Your task to perform on an android device: Search for flights from Zurich to Buenos aires Image 0: 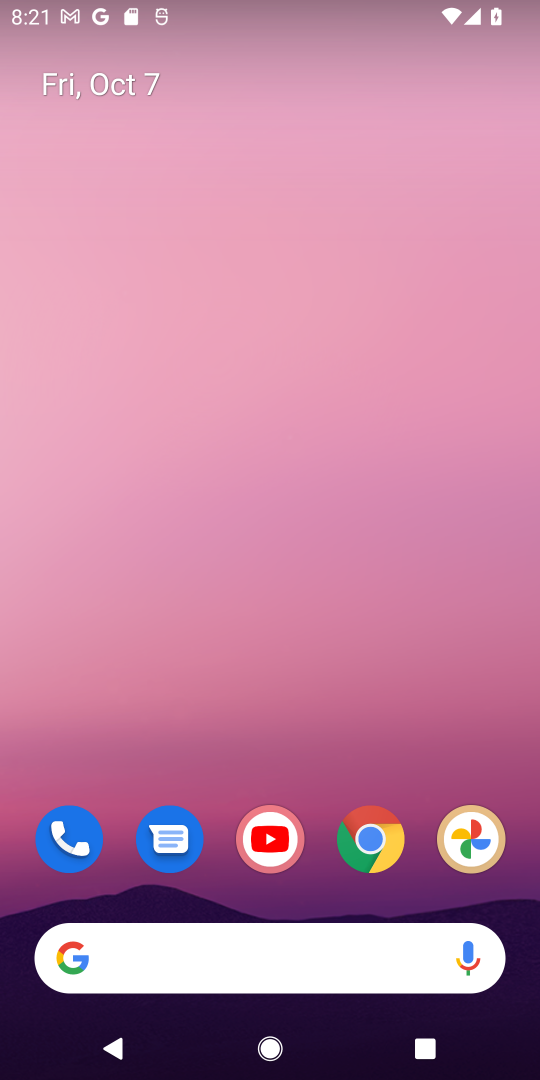
Step 0: click (361, 845)
Your task to perform on an android device: Search for flights from Zurich to Buenos aires Image 1: 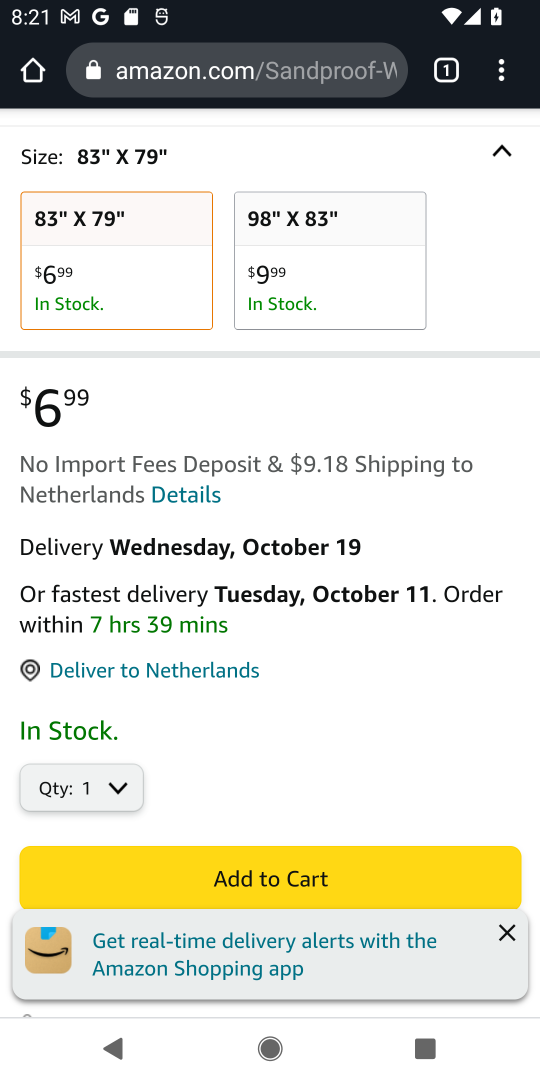
Step 1: click (306, 86)
Your task to perform on an android device: Search for flights from Zurich to Buenos aires Image 2: 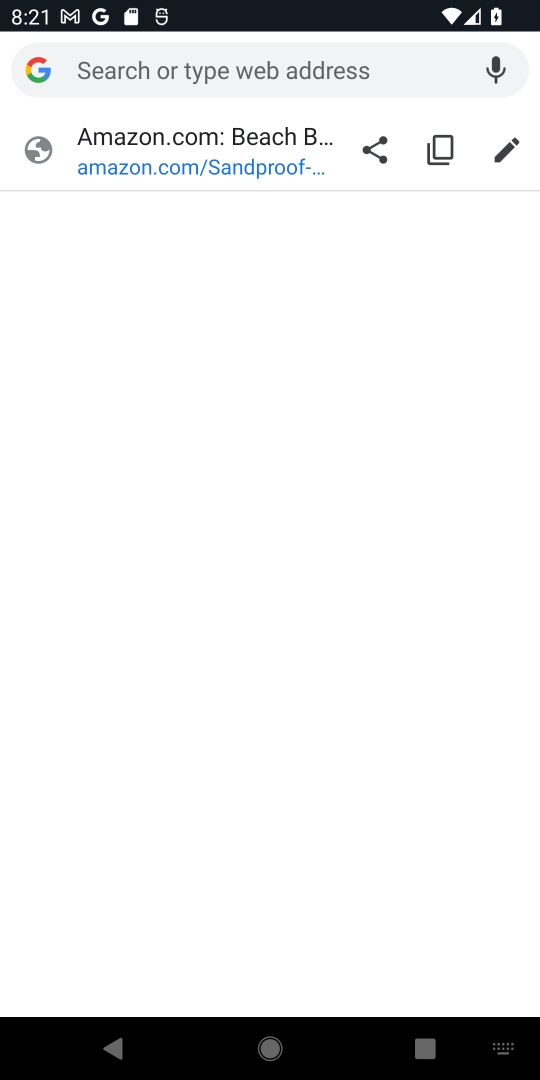
Step 2: type "flight search"
Your task to perform on an android device: Search for flights from Zurich to Buenos aires Image 3: 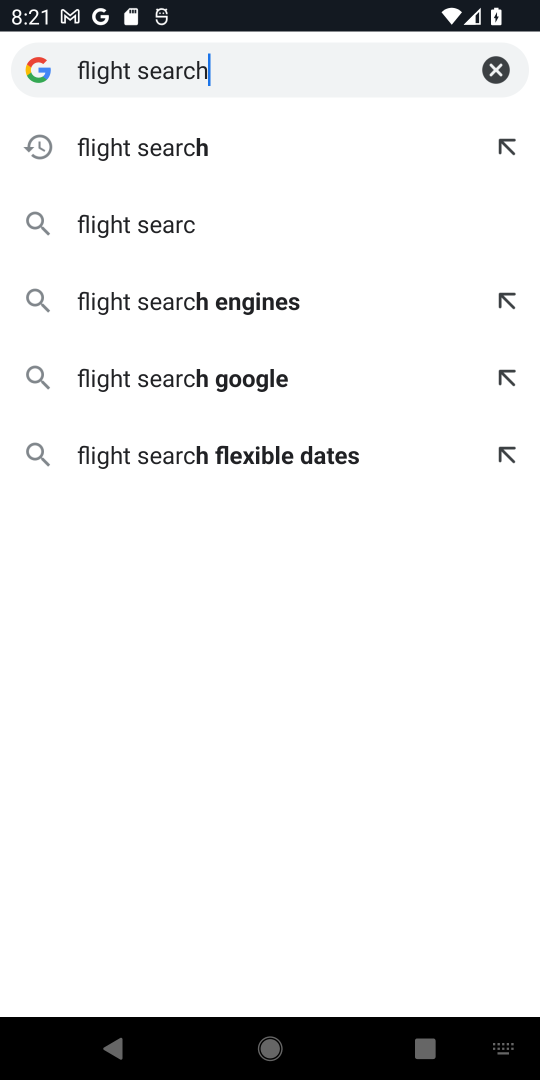
Step 3: type ""
Your task to perform on an android device: Search for flights from Zurich to Buenos aires Image 4: 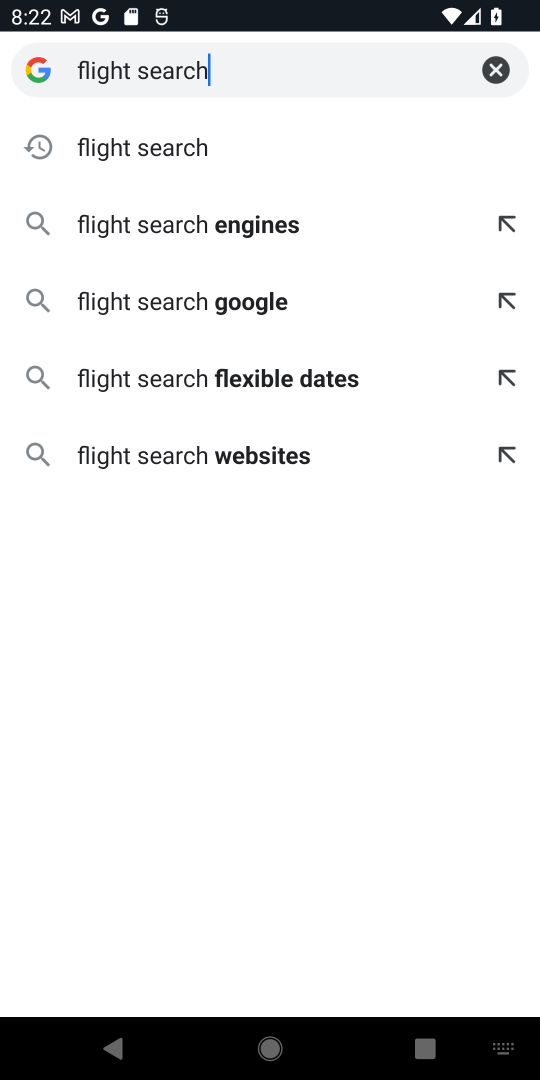
Step 4: click (138, 149)
Your task to perform on an android device: Search for flights from Zurich to Buenos aires Image 5: 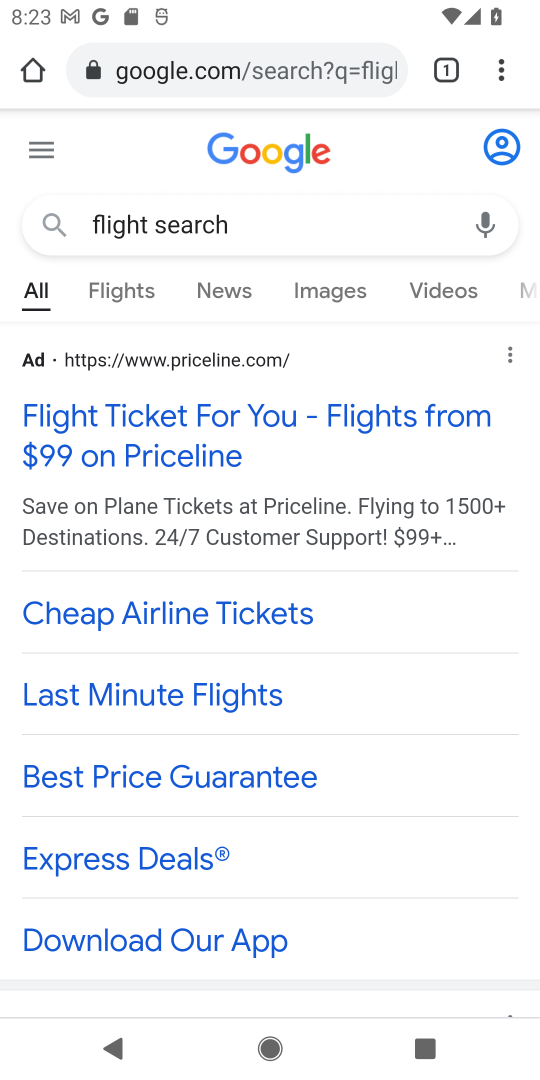
Step 5: click (155, 612)
Your task to perform on an android device: Search for flights from Zurich to Buenos aires Image 6: 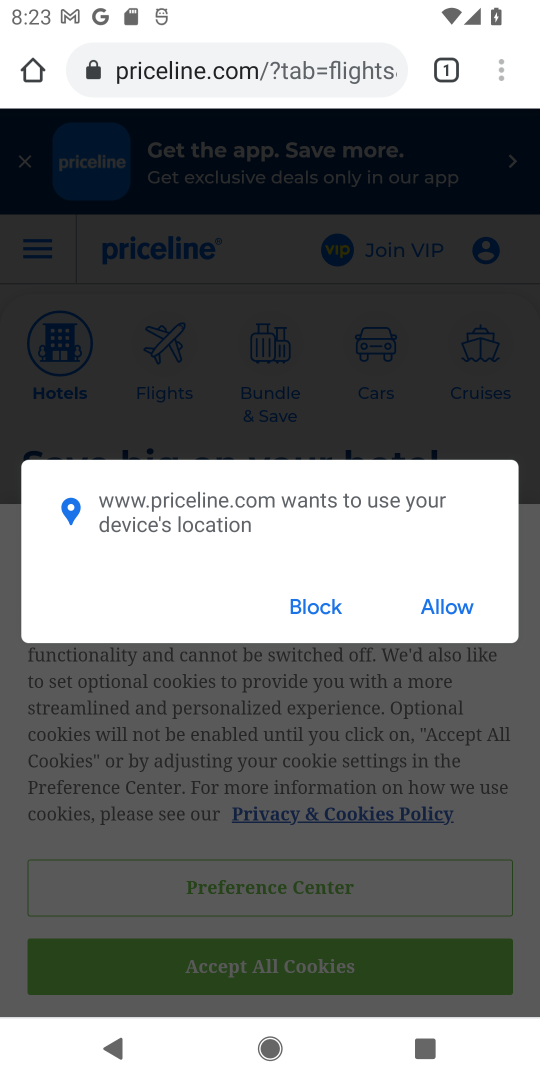
Step 6: click (447, 602)
Your task to perform on an android device: Search for flights from Zurich to Buenos aires Image 7: 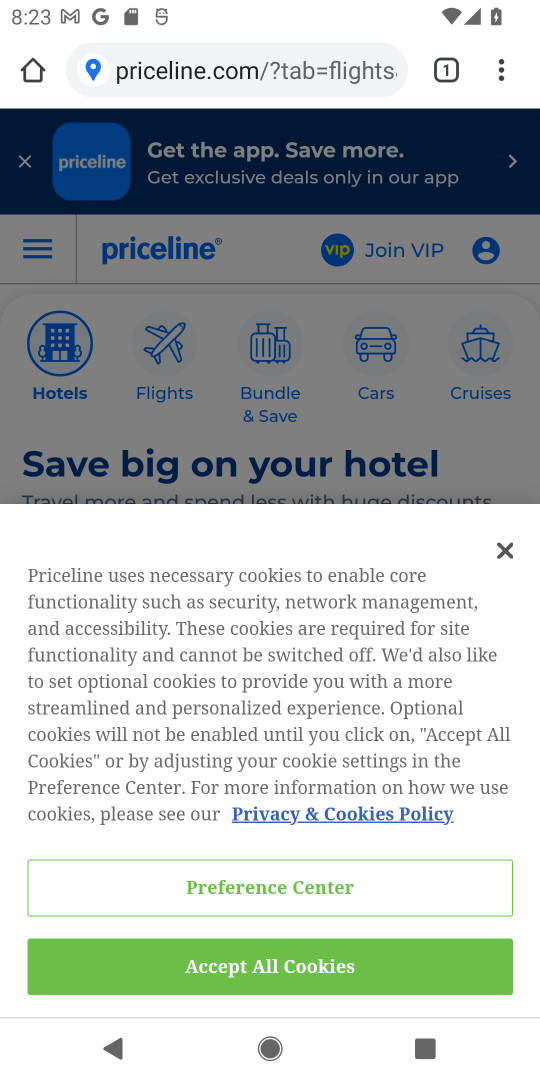
Step 7: click (501, 551)
Your task to perform on an android device: Search for flights from Zurich to Buenos aires Image 8: 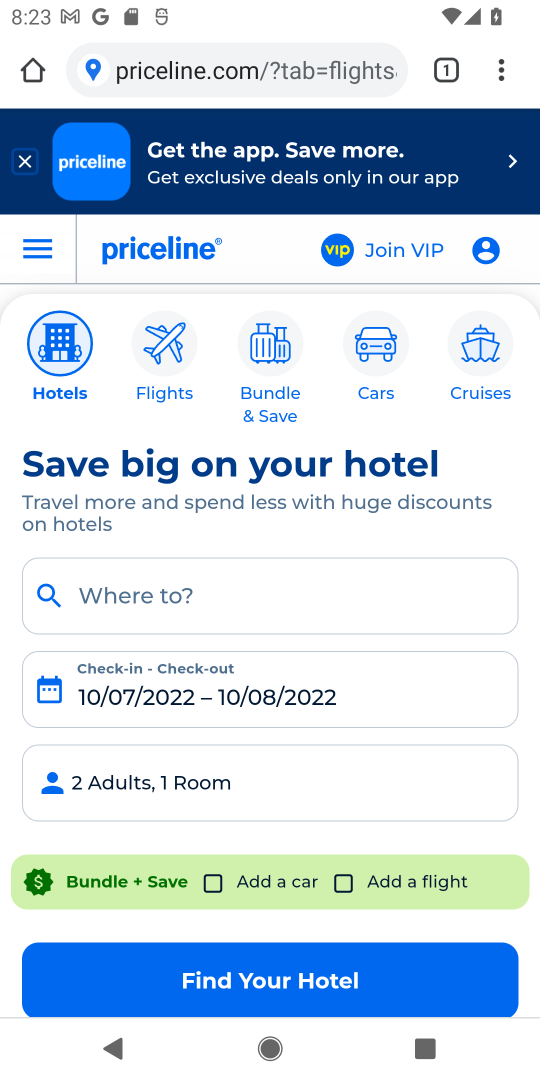
Step 8: click (155, 348)
Your task to perform on an android device: Search for flights from Zurich to Buenos aires Image 9: 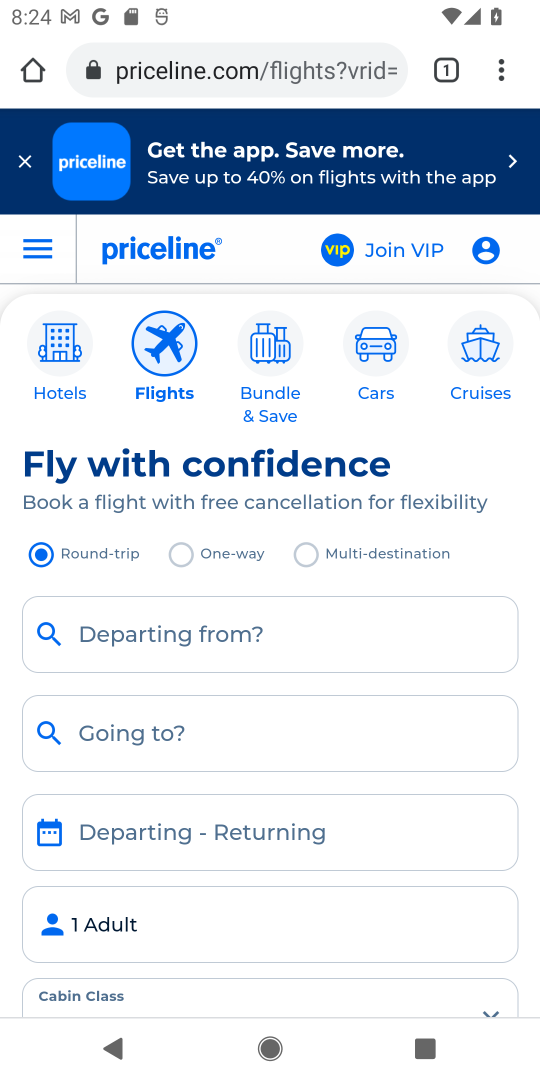
Step 9: click (149, 638)
Your task to perform on an android device: Search for flights from Zurich to Buenos aires Image 10: 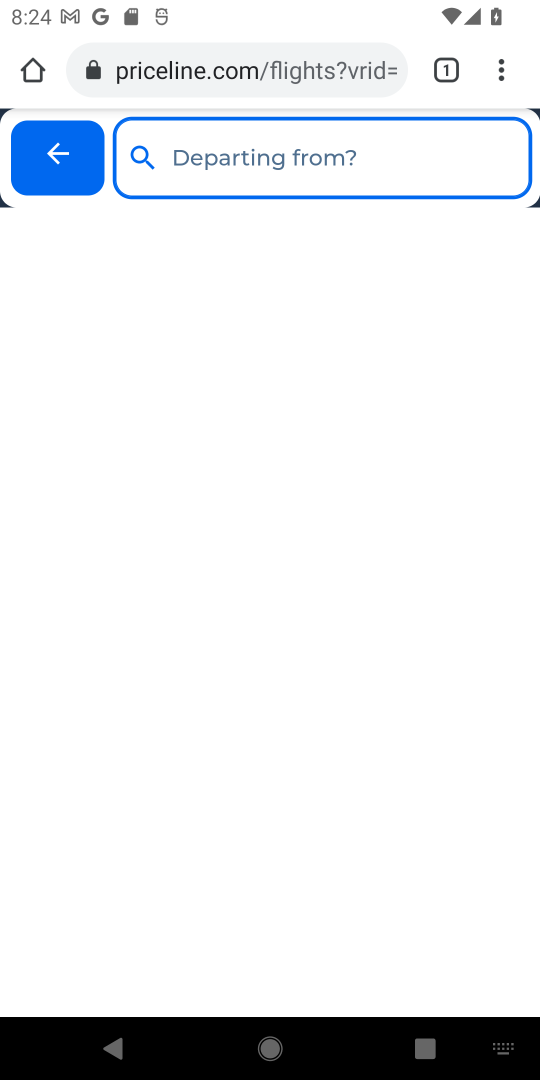
Step 10: type "zurich"
Your task to perform on an android device: Search for flights from Zurich to Buenos aires Image 11: 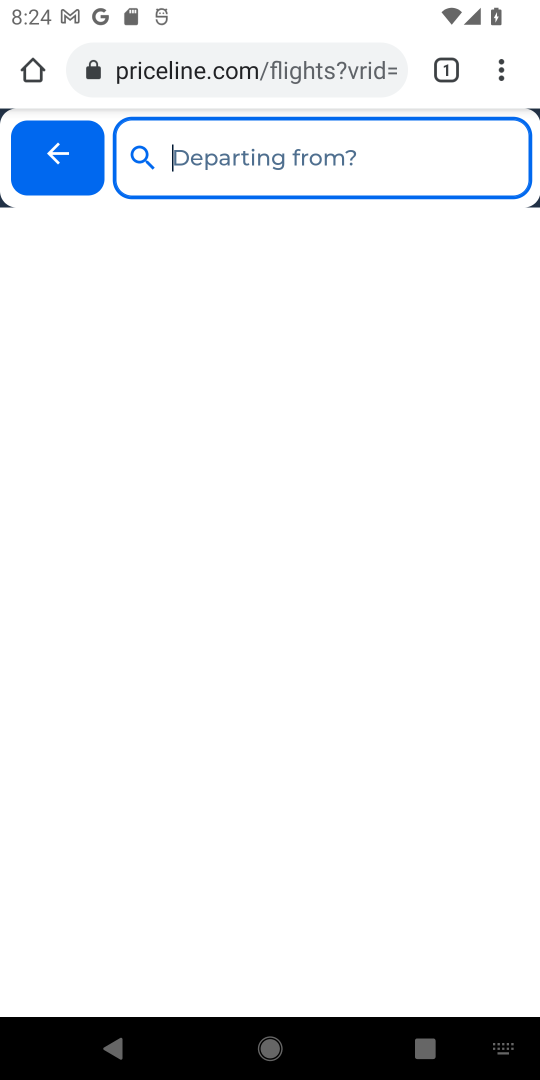
Step 11: type ""
Your task to perform on an android device: Search for flights from Zurich to Buenos aires Image 12: 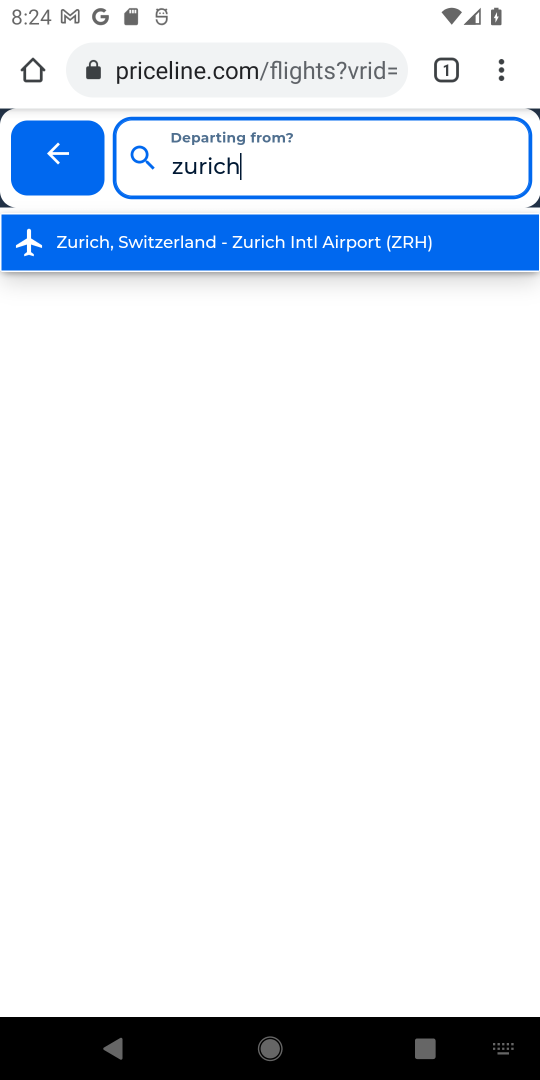
Step 12: click (293, 255)
Your task to perform on an android device: Search for flights from Zurich to Buenos aires Image 13: 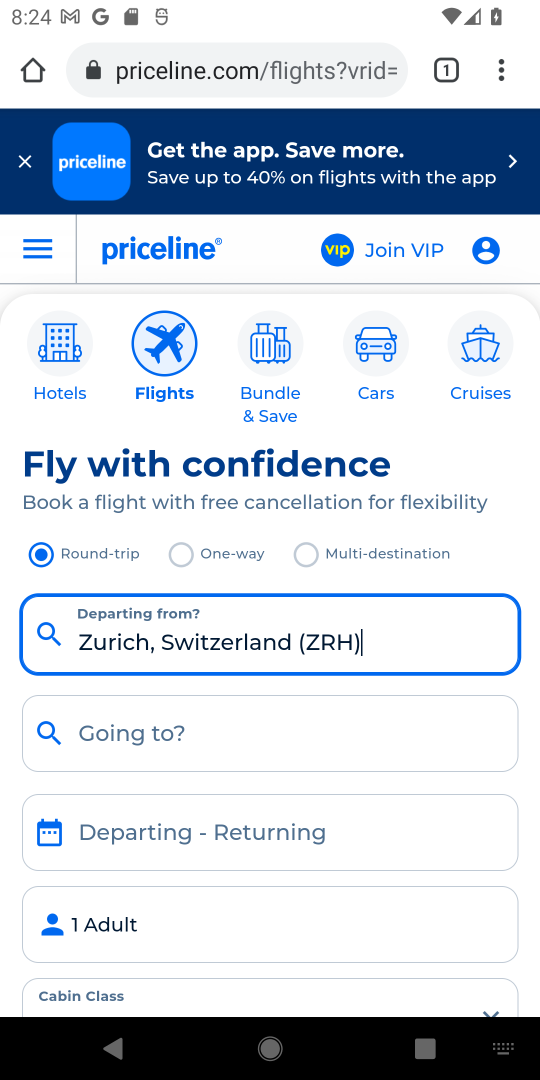
Step 13: click (129, 728)
Your task to perform on an android device: Search for flights from Zurich to Buenos aires Image 14: 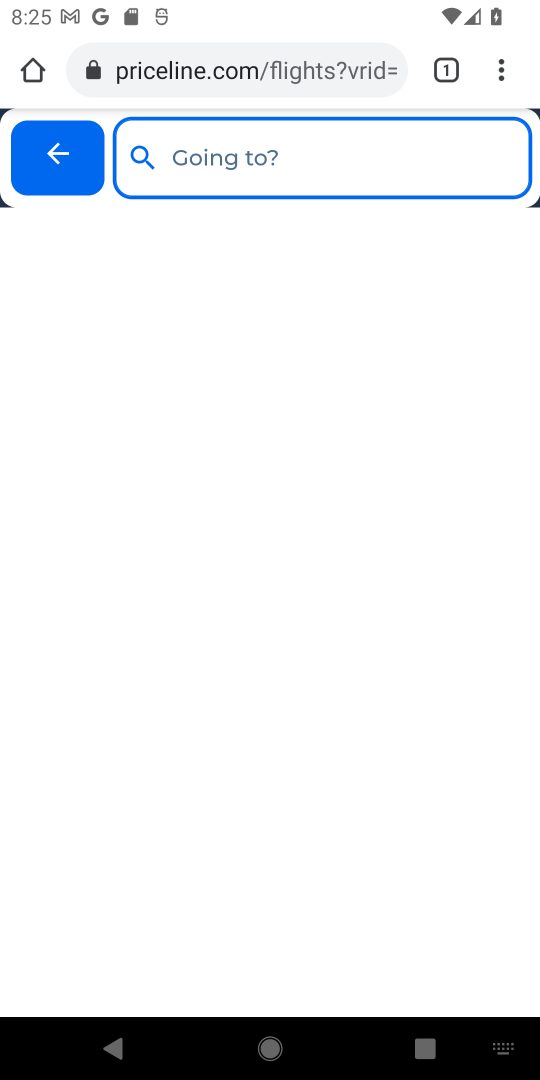
Step 14: type "buenos"
Your task to perform on an android device: Search for flights from Zurich to Buenos aires Image 15: 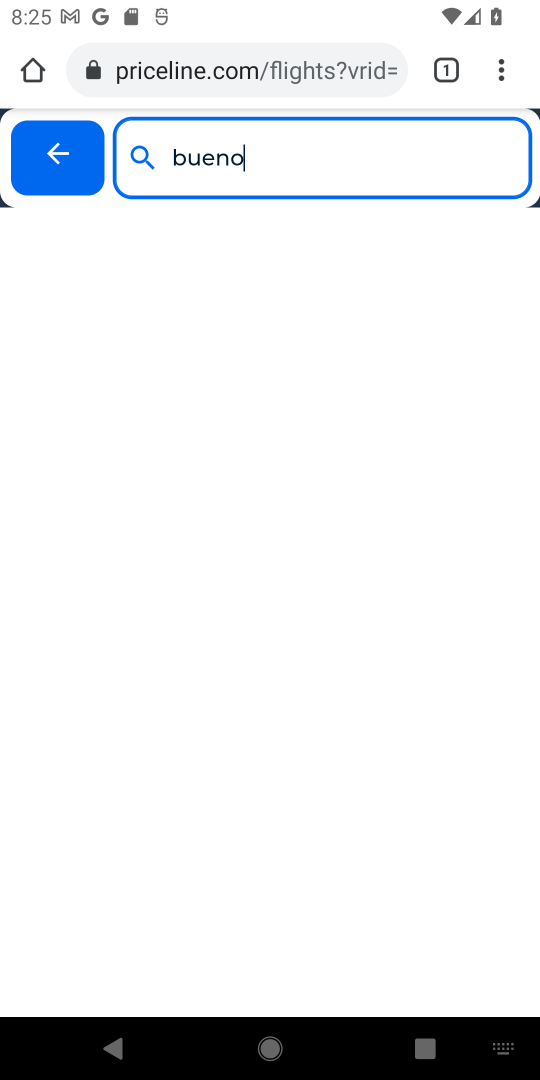
Step 15: type ""
Your task to perform on an android device: Search for flights from Zurich to Buenos aires Image 16: 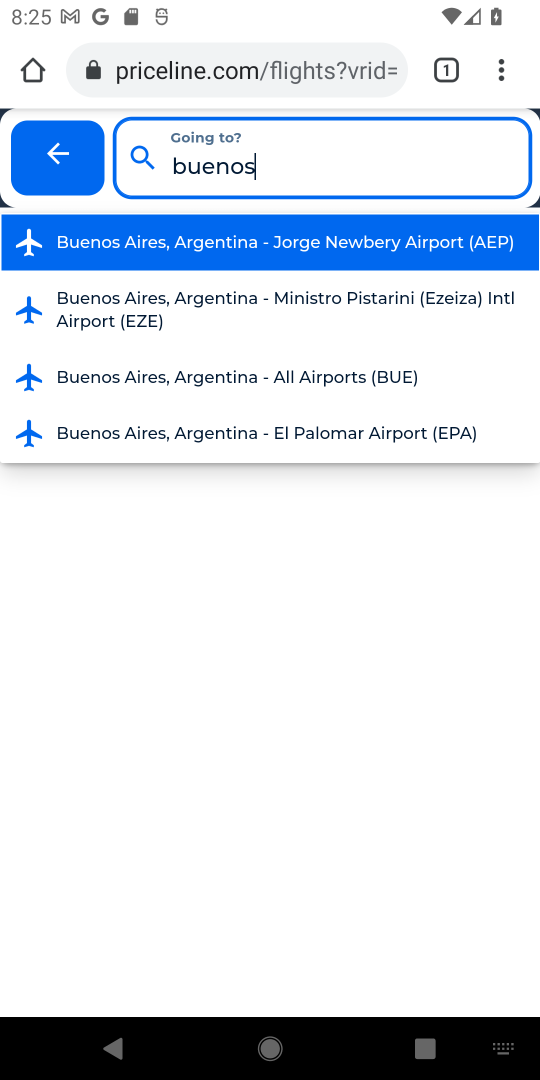
Step 16: click (121, 304)
Your task to perform on an android device: Search for flights from Zurich to Buenos aires Image 17: 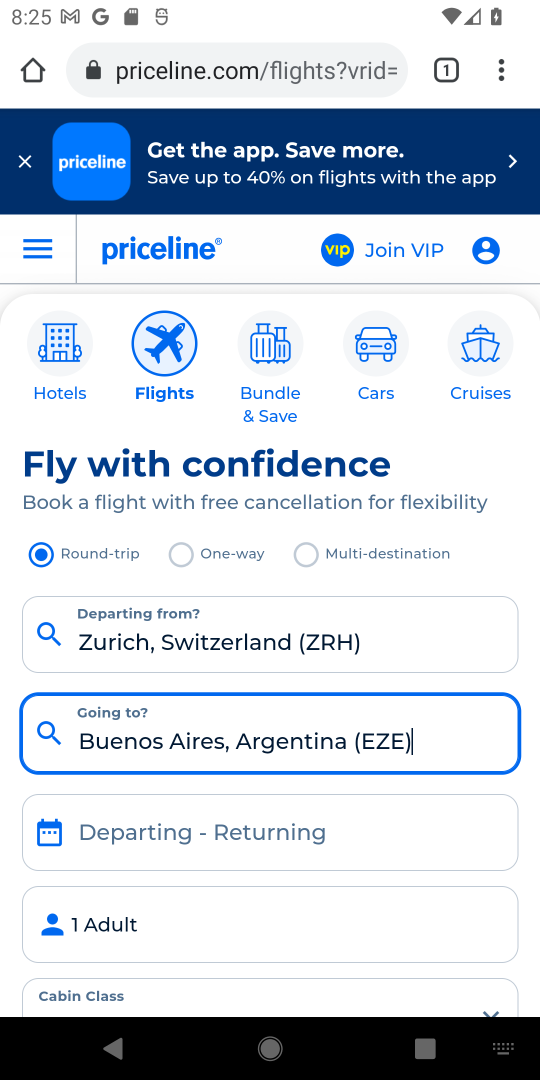
Step 17: drag from (467, 632) to (457, 428)
Your task to perform on an android device: Search for flights from Zurich to Buenos aires Image 18: 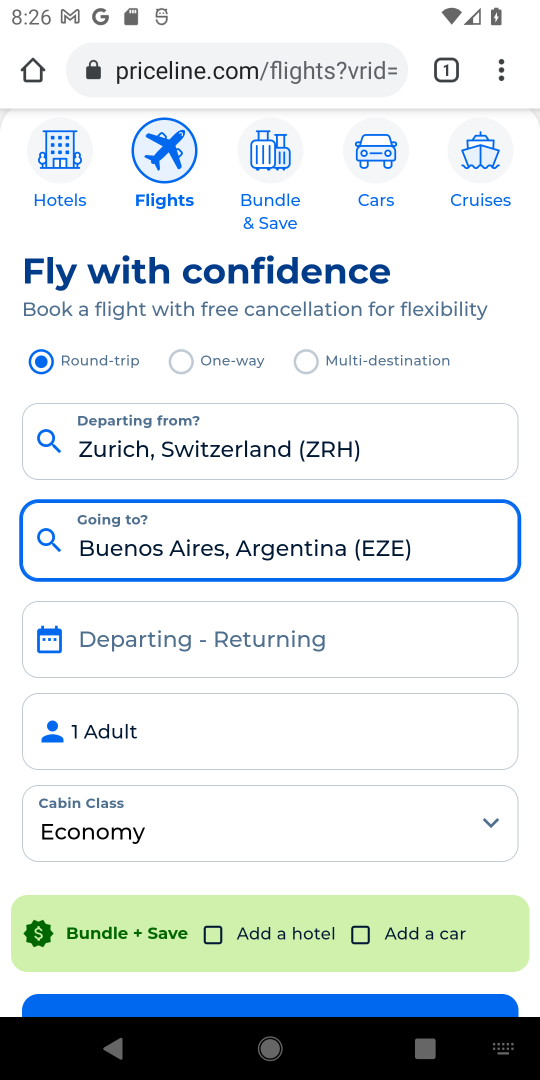
Step 18: drag from (261, 818) to (332, 173)
Your task to perform on an android device: Search for flights from Zurich to Buenos aires Image 19: 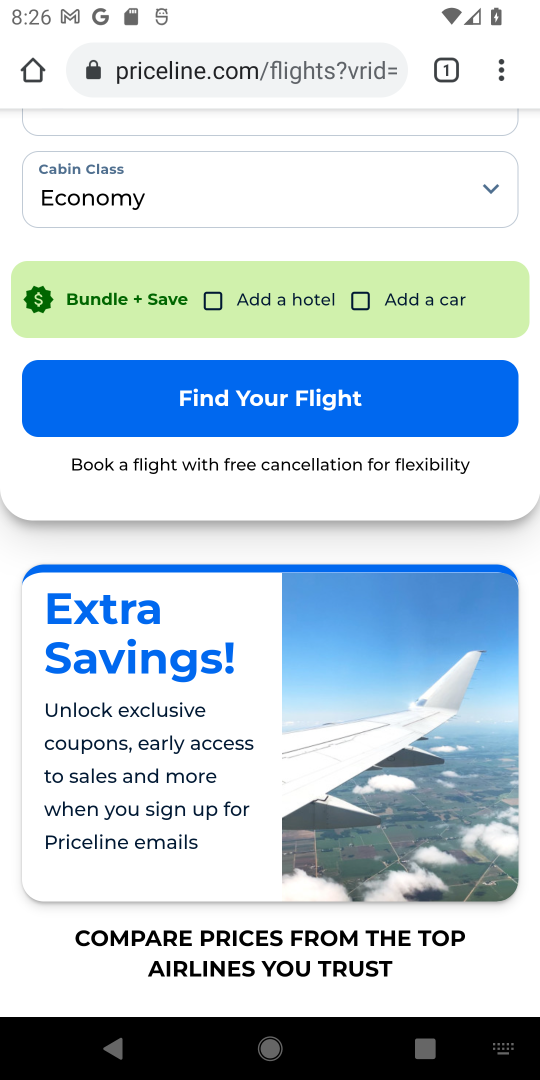
Step 19: click (326, 397)
Your task to perform on an android device: Search for flights from Zurich to Buenos aires Image 20: 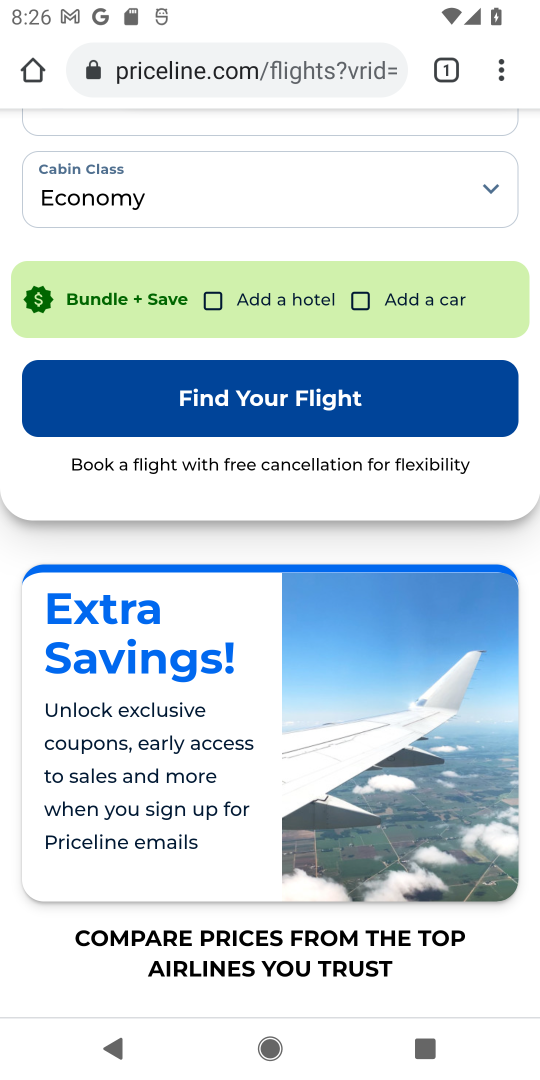
Step 20: click (322, 398)
Your task to perform on an android device: Search for flights from Zurich to Buenos aires Image 21: 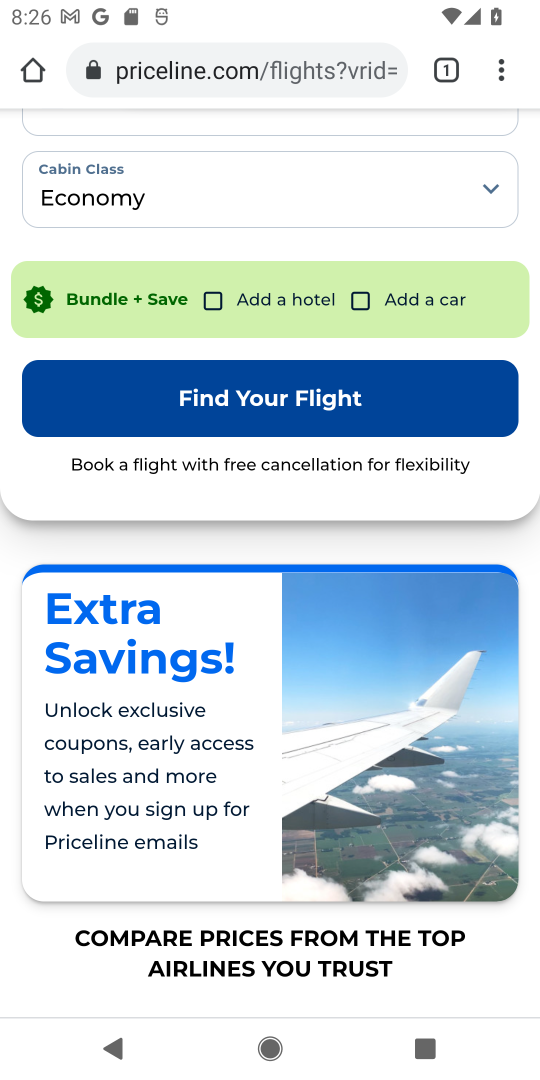
Step 21: click (318, 404)
Your task to perform on an android device: Search for flights from Zurich to Buenos aires Image 22: 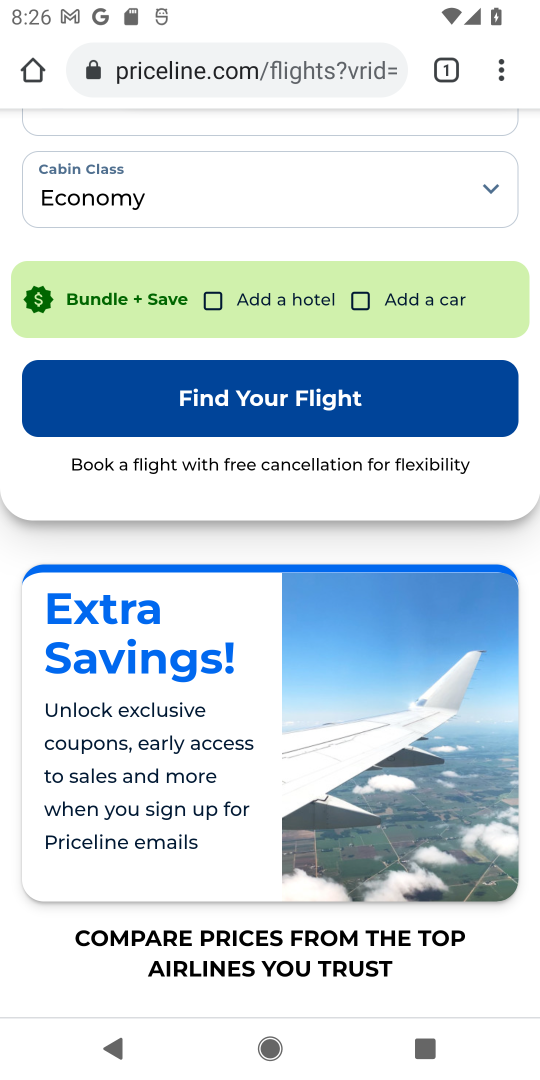
Step 22: click (351, 402)
Your task to perform on an android device: Search for flights from Zurich to Buenos aires Image 23: 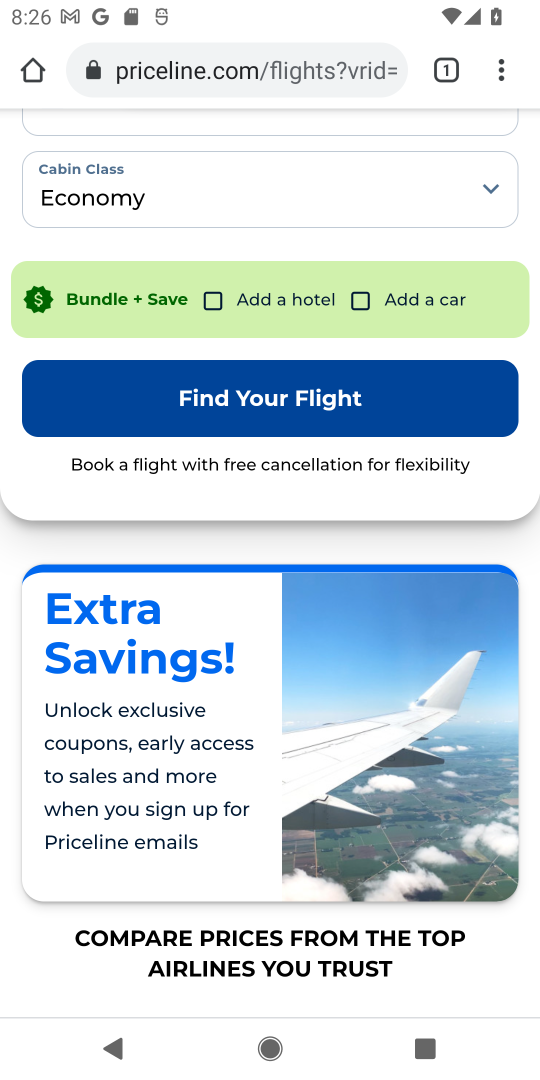
Step 23: click (341, 403)
Your task to perform on an android device: Search for flights from Zurich to Buenos aires Image 24: 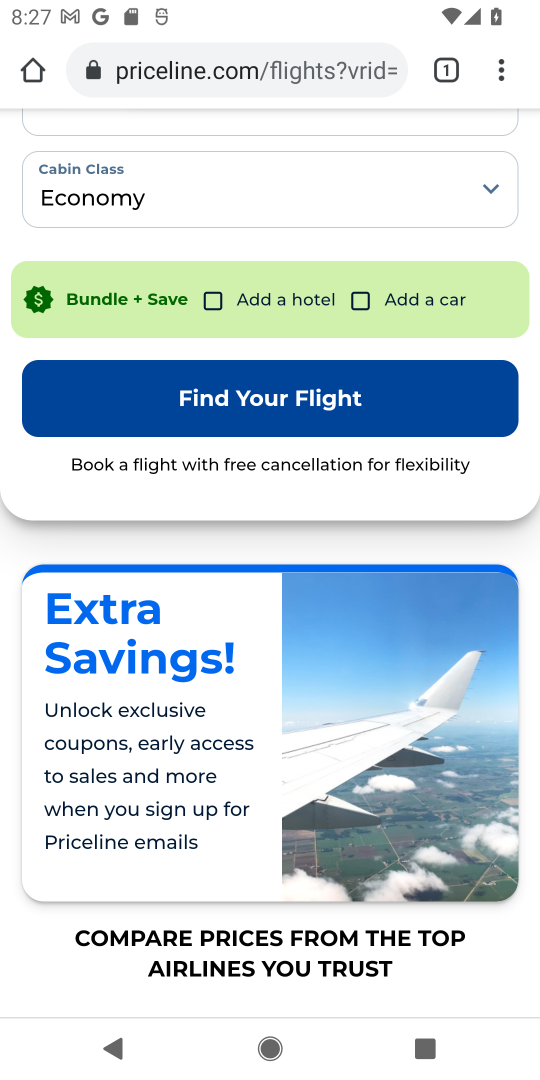
Step 24: click (340, 403)
Your task to perform on an android device: Search for flights from Zurich to Buenos aires Image 25: 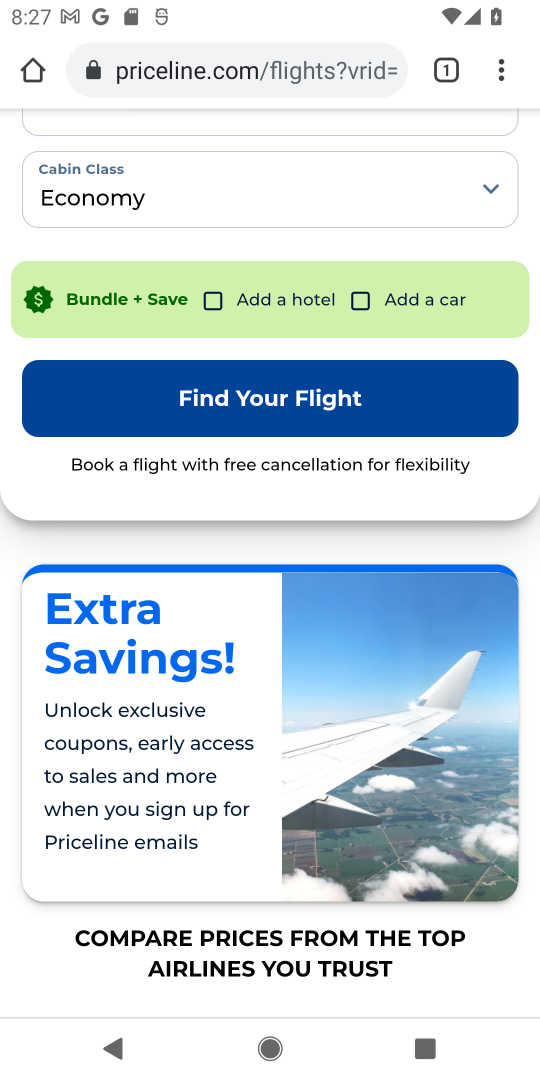
Step 25: click (336, 402)
Your task to perform on an android device: Search for flights from Zurich to Buenos aires Image 26: 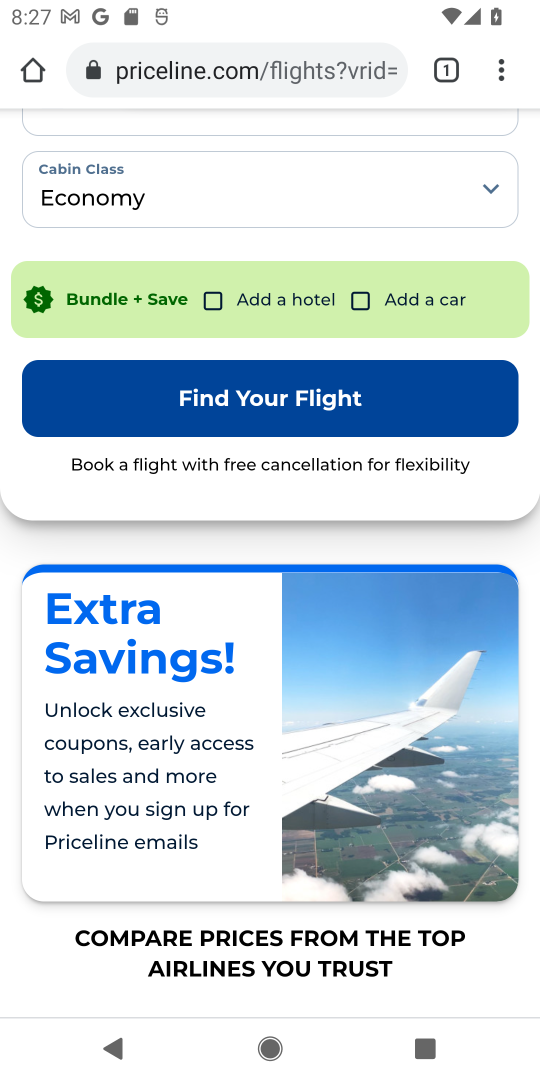
Step 26: task complete